Your task to perform on an android device: Set the phone to "Do not disturb". Image 0: 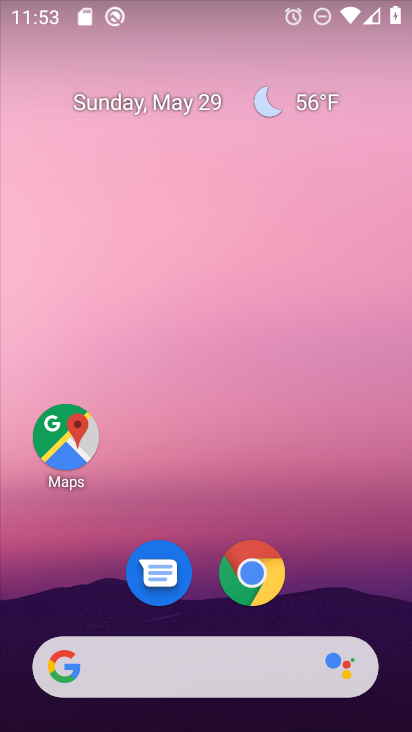
Step 0: drag from (302, 593) to (322, 57)
Your task to perform on an android device: Set the phone to "Do not disturb". Image 1: 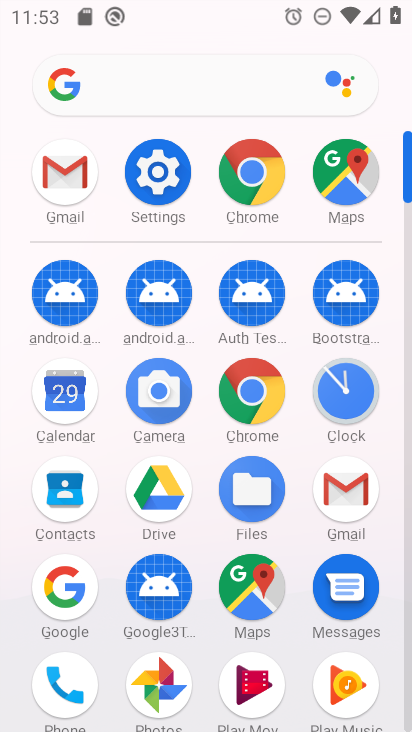
Step 1: click (155, 177)
Your task to perform on an android device: Set the phone to "Do not disturb". Image 2: 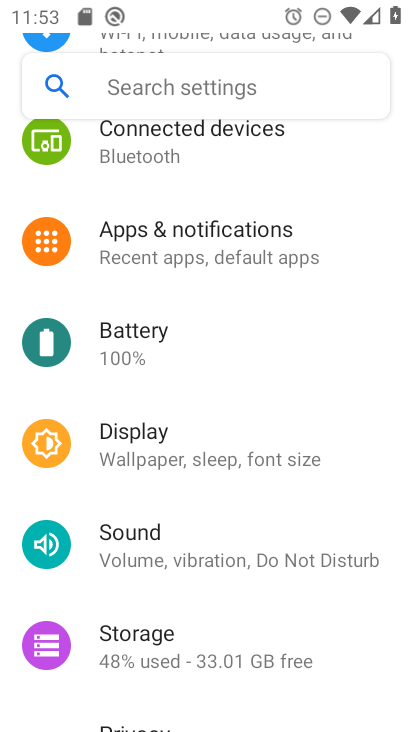
Step 2: click (211, 539)
Your task to perform on an android device: Set the phone to "Do not disturb". Image 3: 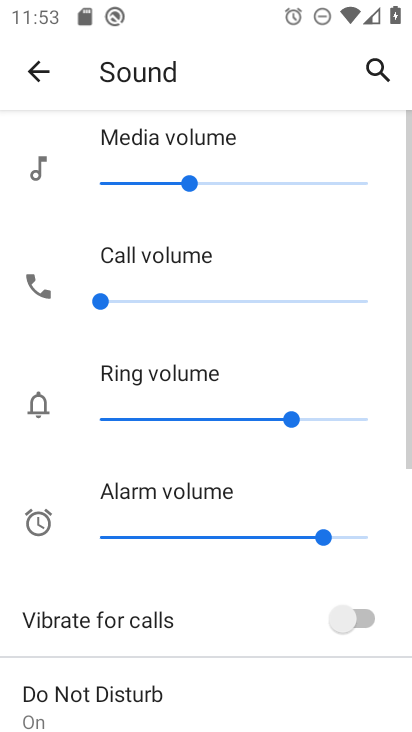
Step 3: drag from (192, 674) to (189, 184)
Your task to perform on an android device: Set the phone to "Do not disturb". Image 4: 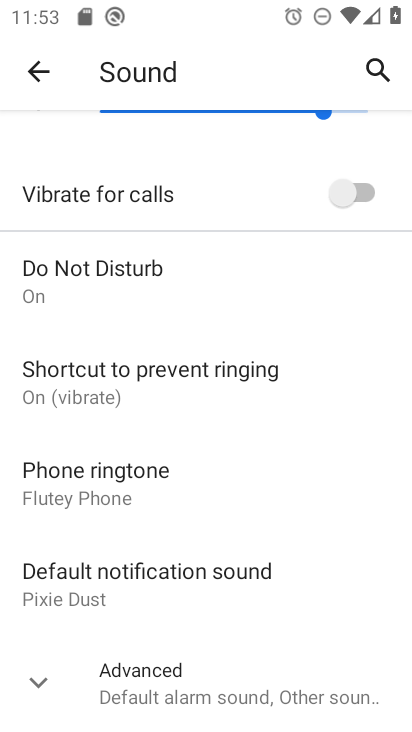
Step 4: click (99, 286)
Your task to perform on an android device: Set the phone to "Do not disturb". Image 5: 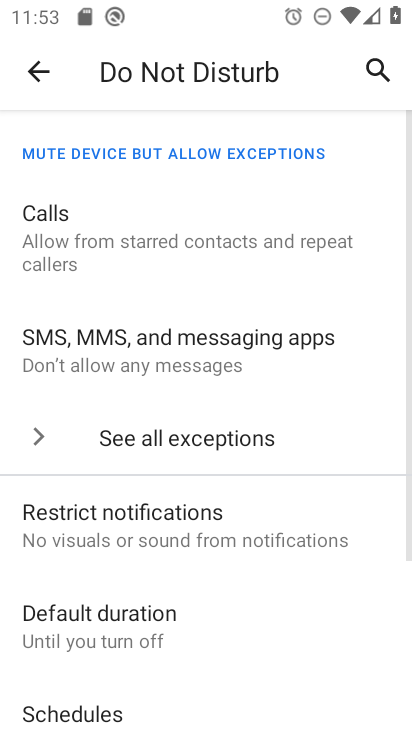
Step 5: task complete